Your task to perform on an android device: set default search engine in the chrome app Image 0: 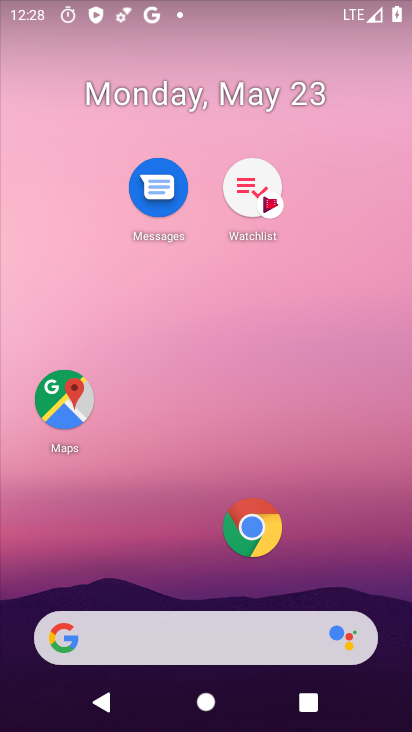
Step 0: drag from (239, 666) to (182, 95)
Your task to perform on an android device: set default search engine in the chrome app Image 1: 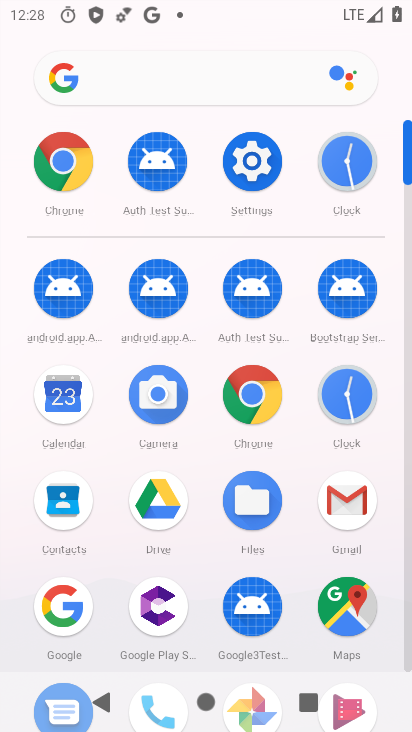
Step 1: click (55, 169)
Your task to perform on an android device: set default search engine in the chrome app Image 2: 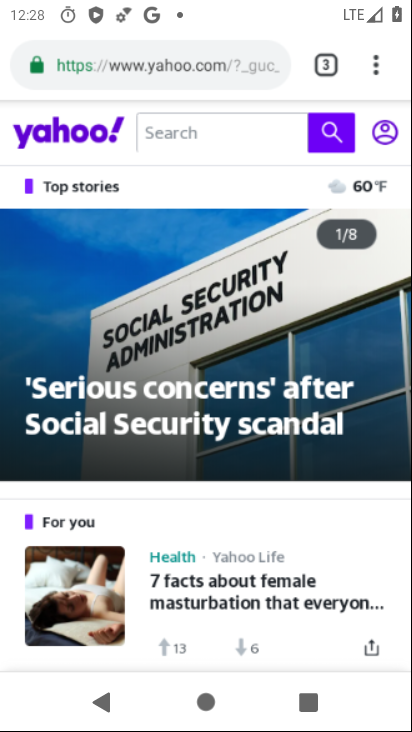
Step 2: click (73, 163)
Your task to perform on an android device: set default search engine in the chrome app Image 3: 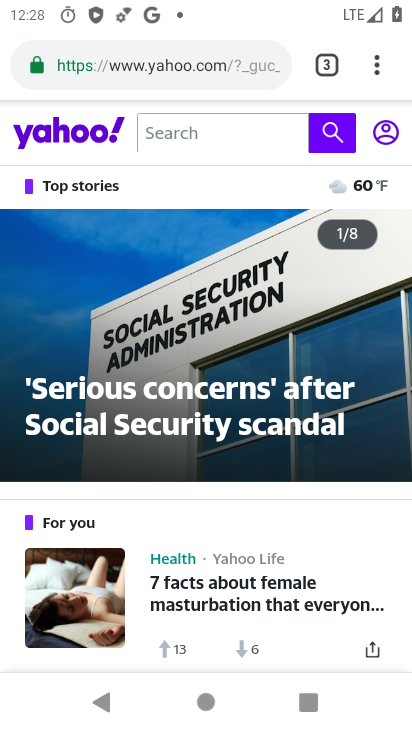
Step 3: click (357, 69)
Your task to perform on an android device: set default search engine in the chrome app Image 4: 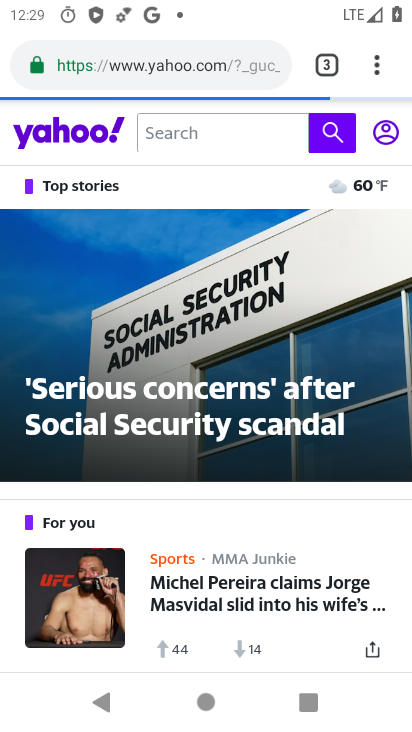
Step 4: drag from (376, 66) to (132, 568)
Your task to perform on an android device: set default search engine in the chrome app Image 5: 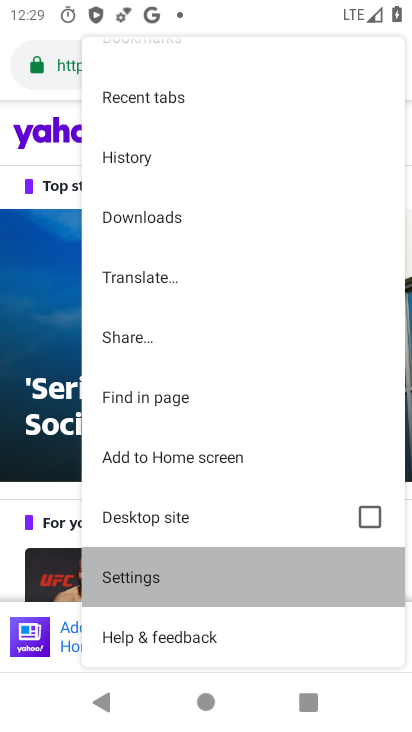
Step 5: click (132, 568)
Your task to perform on an android device: set default search engine in the chrome app Image 6: 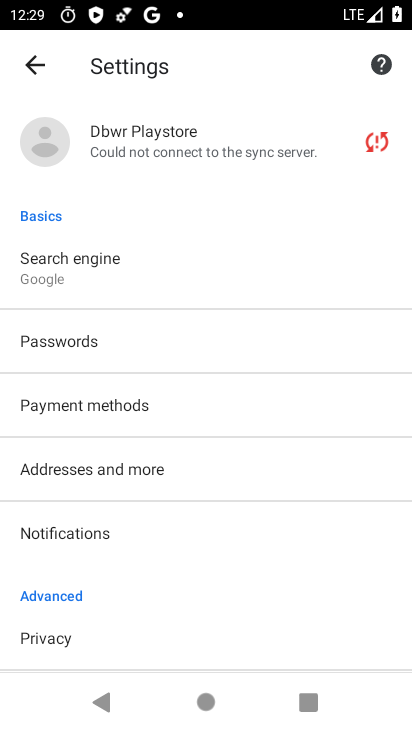
Step 6: click (63, 259)
Your task to perform on an android device: set default search engine in the chrome app Image 7: 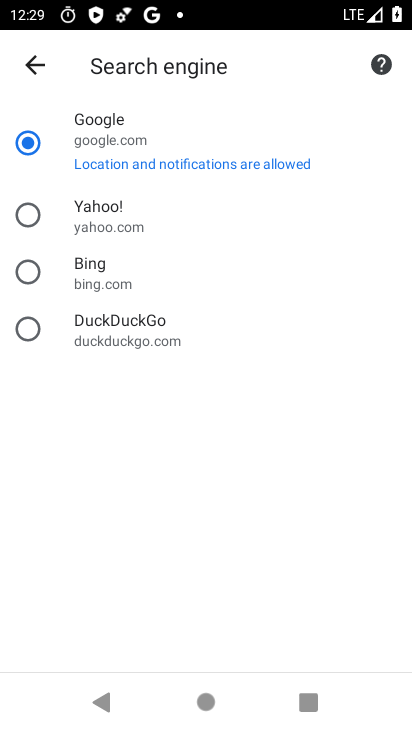
Step 7: click (23, 208)
Your task to perform on an android device: set default search engine in the chrome app Image 8: 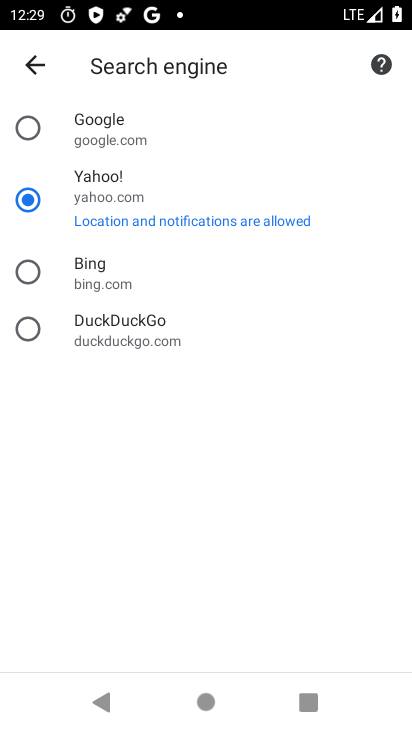
Step 8: click (23, 128)
Your task to perform on an android device: set default search engine in the chrome app Image 9: 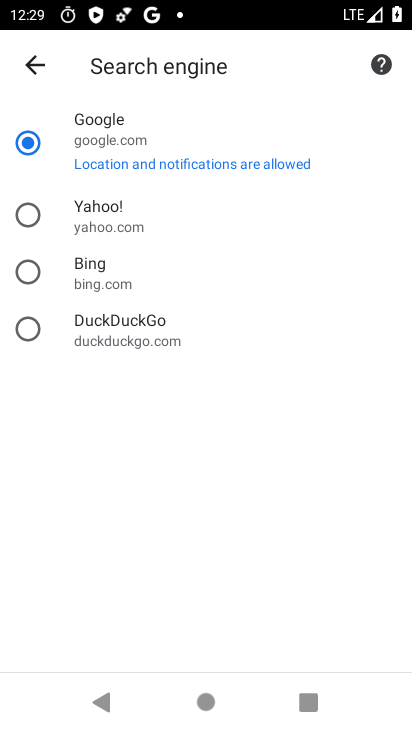
Step 9: click (33, 211)
Your task to perform on an android device: set default search engine in the chrome app Image 10: 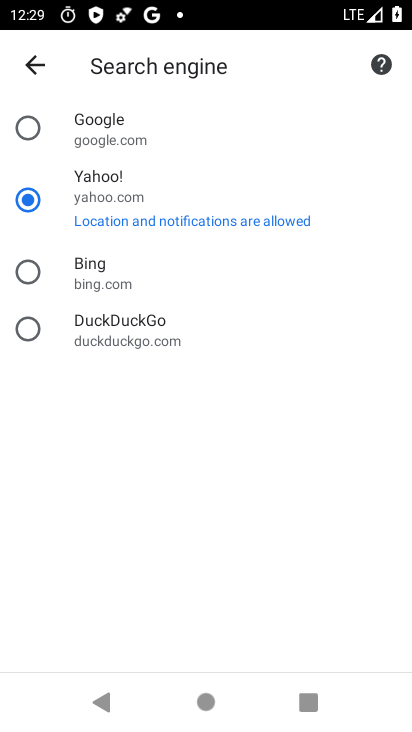
Step 10: click (26, 134)
Your task to perform on an android device: set default search engine in the chrome app Image 11: 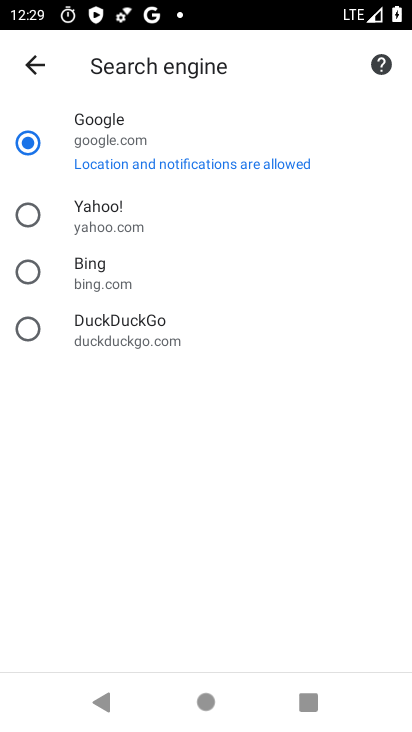
Step 11: task complete